Your task to perform on an android device: Search for a new eyeshadow Image 0: 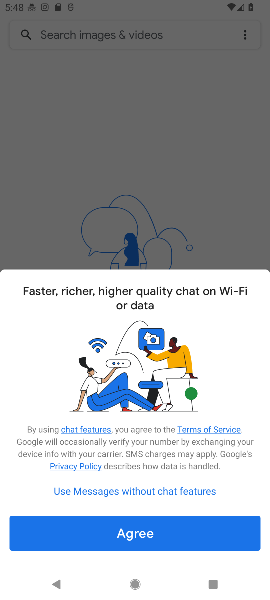
Step 0: press home button
Your task to perform on an android device: Search for a new eyeshadow Image 1: 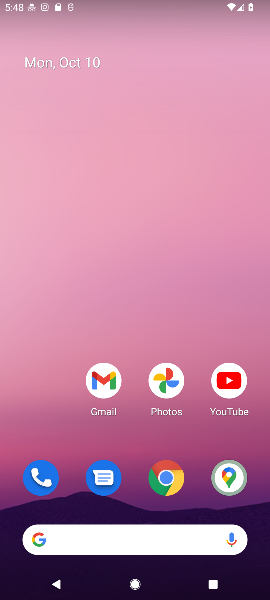
Step 1: click (166, 485)
Your task to perform on an android device: Search for a new eyeshadow Image 2: 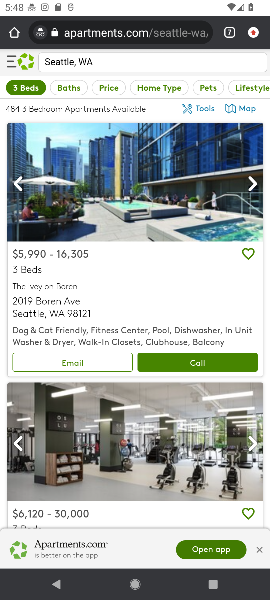
Step 2: click (158, 26)
Your task to perform on an android device: Search for a new eyeshadow Image 3: 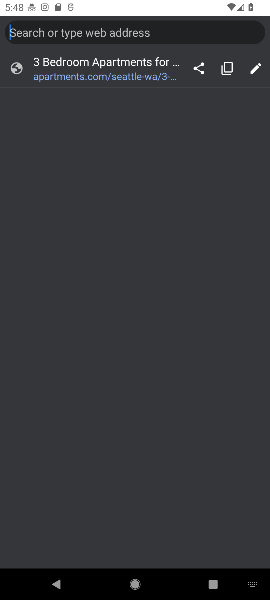
Step 3: type "Search for a new eyeshadow"
Your task to perform on an android device: Search for a new eyeshadow Image 4: 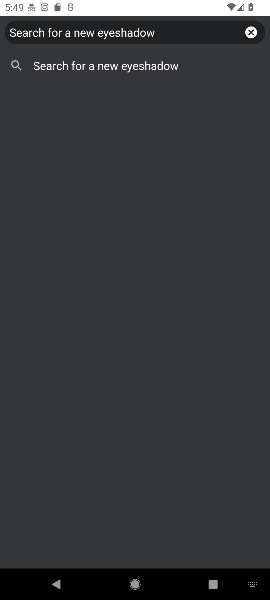
Step 4: click (134, 73)
Your task to perform on an android device: Search for a new eyeshadow Image 5: 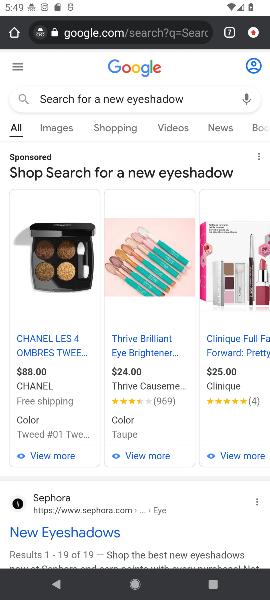
Step 5: click (94, 131)
Your task to perform on an android device: Search for a new eyeshadow Image 6: 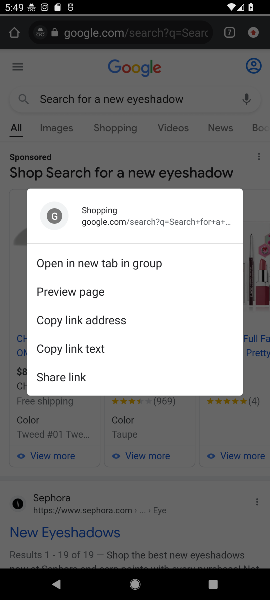
Step 6: click (124, 128)
Your task to perform on an android device: Search for a new eyeshadow Image 7: 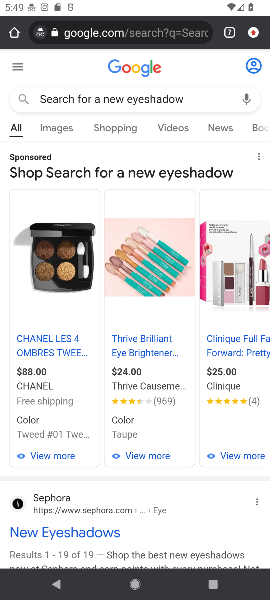
Step 7: click (124, 128)
Your task to perform on an android device: Search for a new eyeshadow Image 8: 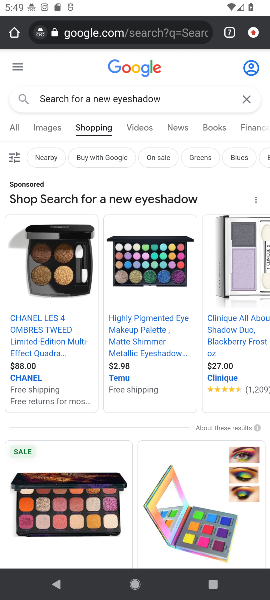
Step 8: click (60, 353)
Your task to perform on an android device: Search for a new eyeshadow Image 9: 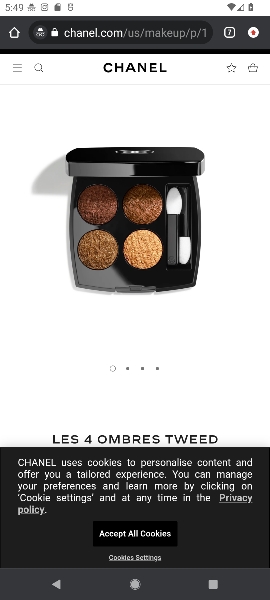
Step 9: task complete